Your task to perform on an android device: Turn off the flashlight Image 0: 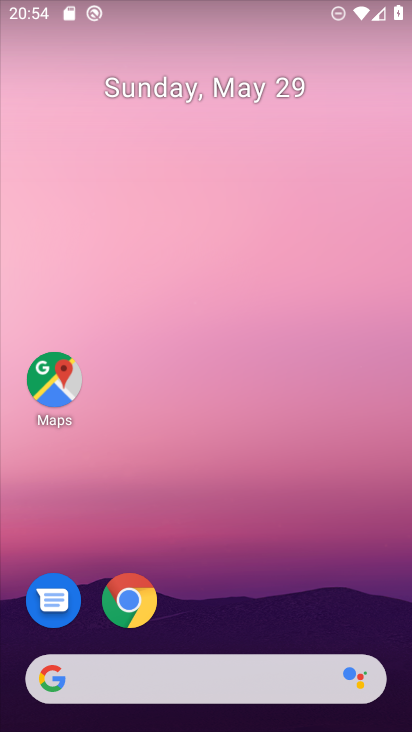
Step 0: drag from (321, 578) to (322, 142)
Your task to perform on an android device: Turn off the flashlight Image 1: 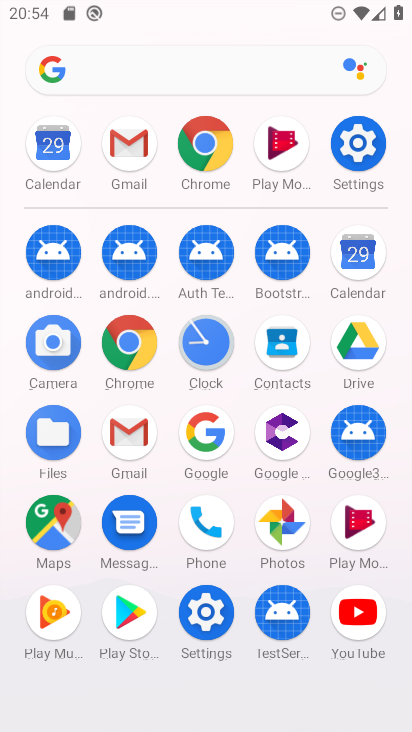
Step 1: click (208, 622)
Your task to perform on an android device: Turn off the flashlight Image 2: 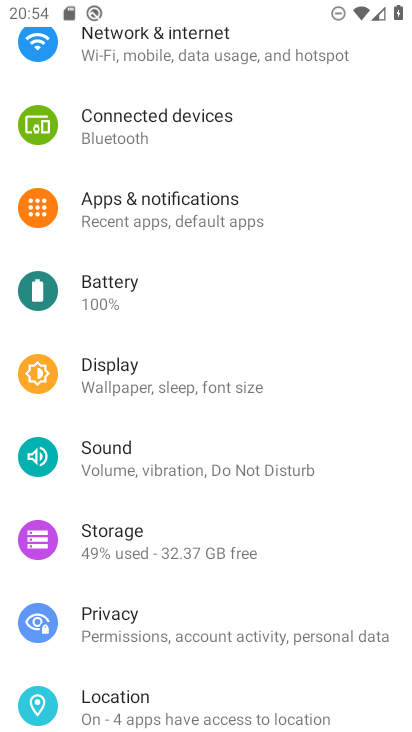
Step 2: drag from (223, 132) to (220, 459)
Your task to perform on an android device: Turn off the flashlight Image 3: 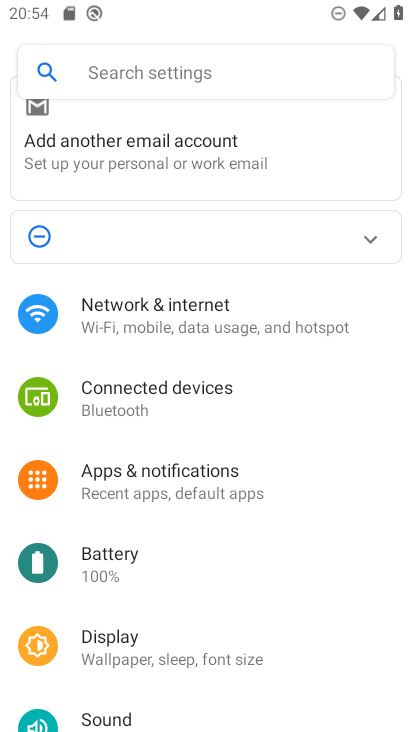
Step 3: click (196, 64)
Your task to perform on an android device: Turn off the flashlight Image 4: 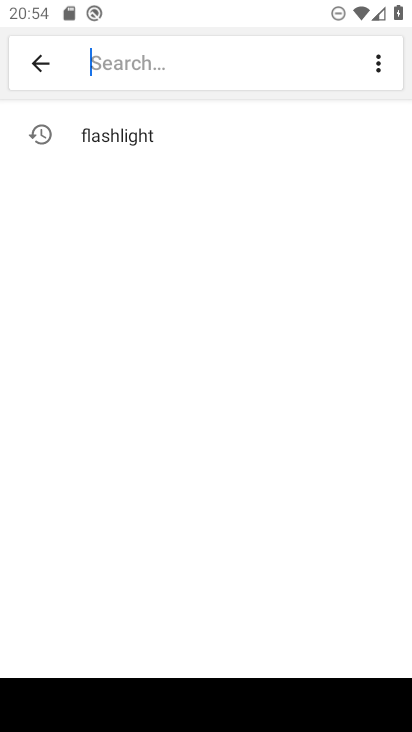
Step 4: type "flashlight"
Your task to perform on an android device: Turn off the flashlight Image 5: 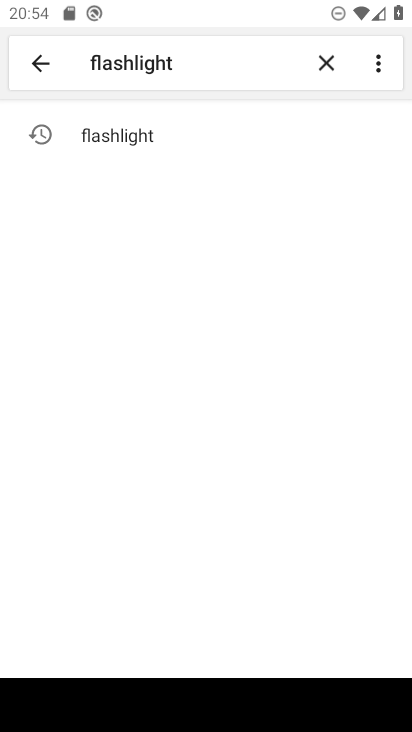
Step 5: click (211, 167)
Your task to perform on an android device: Turn off the flashlight Image 6: 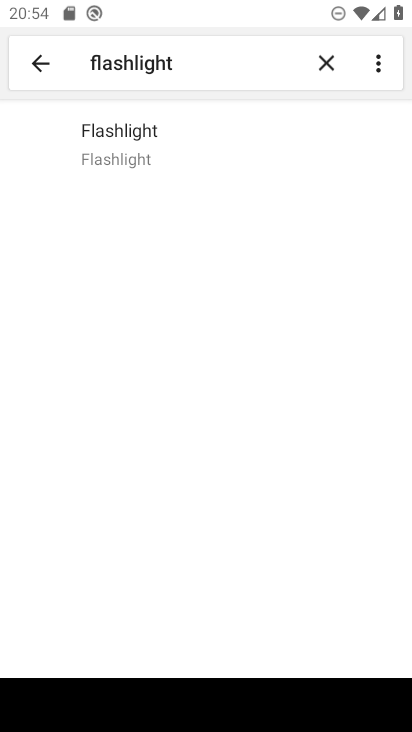
Step 6: click (150, 144)
Your task to perform on an android device: Turn off the flashlight Image 7: 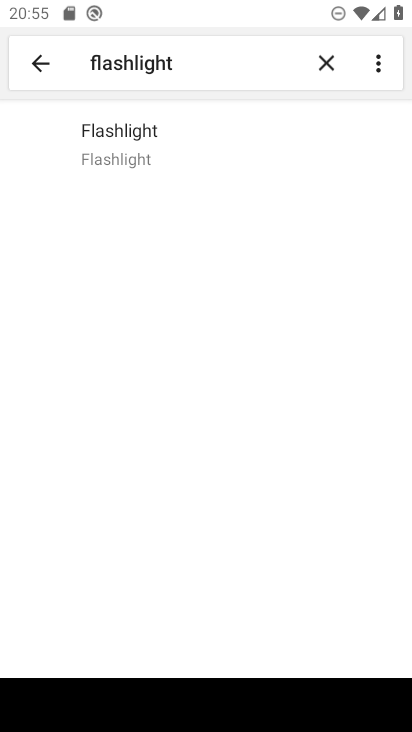
Step 7: task complete